Your task to perform on an android device: Open Amazon Image 0: 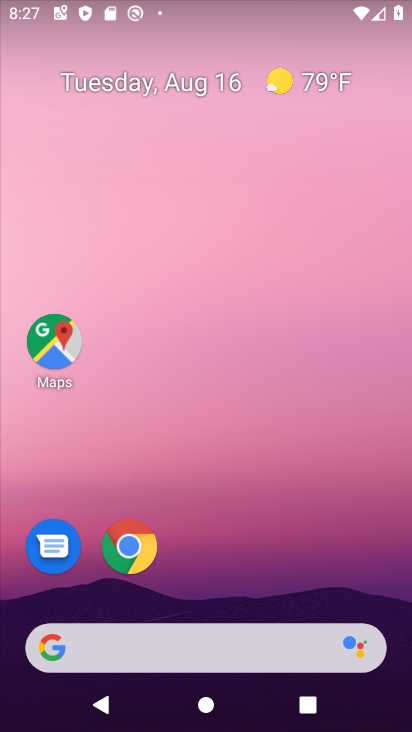
Step 0: click (143, 554)
Your task to perform on an android device: Open Amazon Image 1: 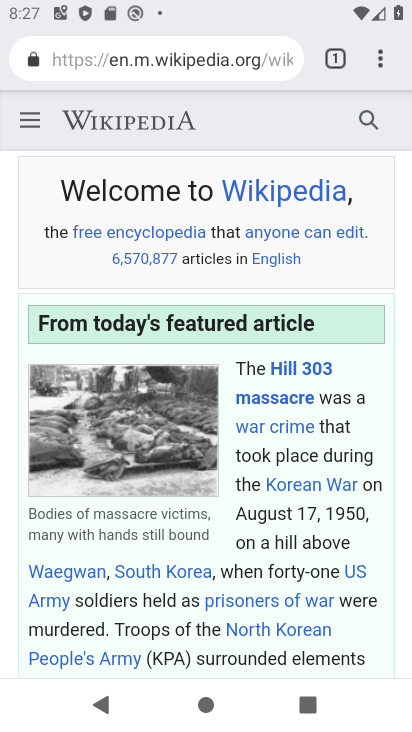
Step 1: press back button
Your task to perform on an android device: Open Amazon Image 2: 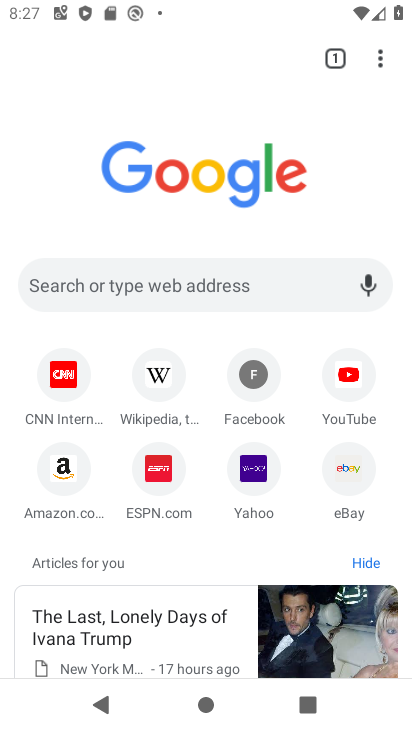
Step 2: click (61, 477)
Your task to perform on an android device: Open Amazon Image 3: 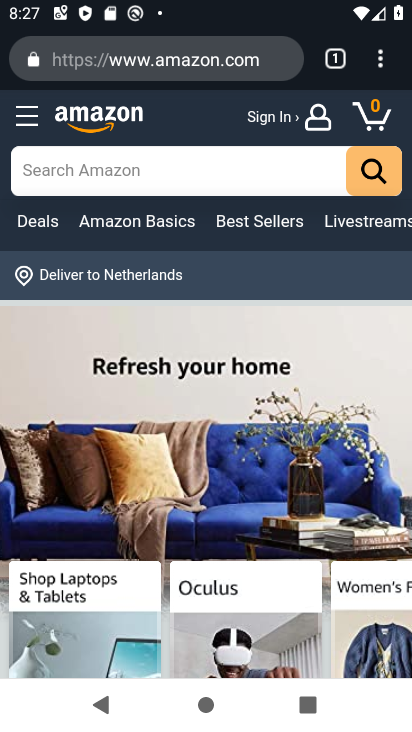
Step 3: task complete